Your task to perform on an android device: toggle airplane mode Image 0: 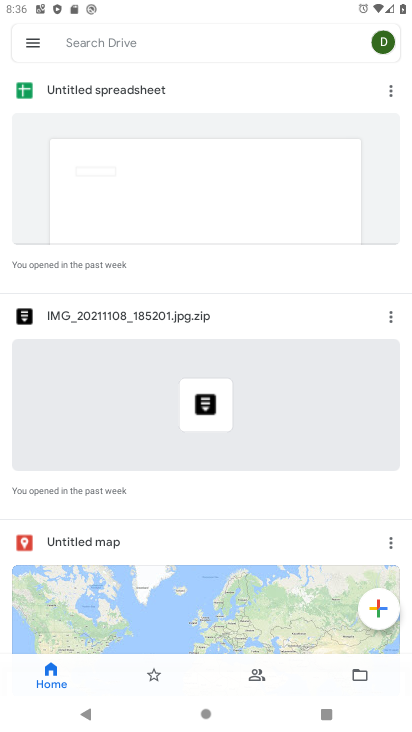
Step 0: press home button
Your task to perform on an android device: toggle airplane mode Image 1: 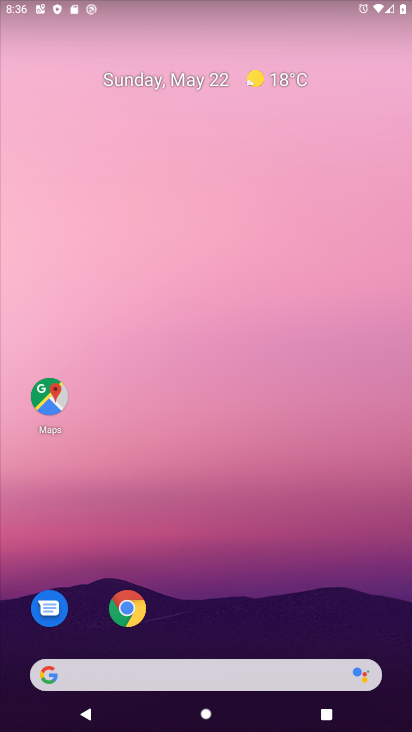
Step 1: drag from (238, 727) to (195, 89)
Your task to perform on an android device: toggle airplane mode Image 2: 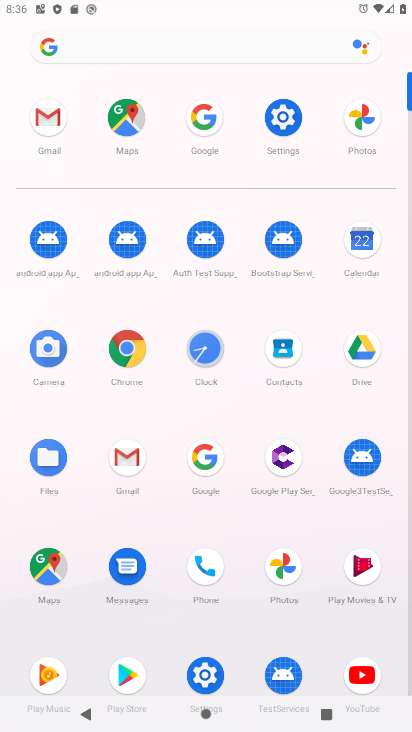
Step 2: click (289, 115)
Your task to perform on an android device: toggle airplane mode Image 3: 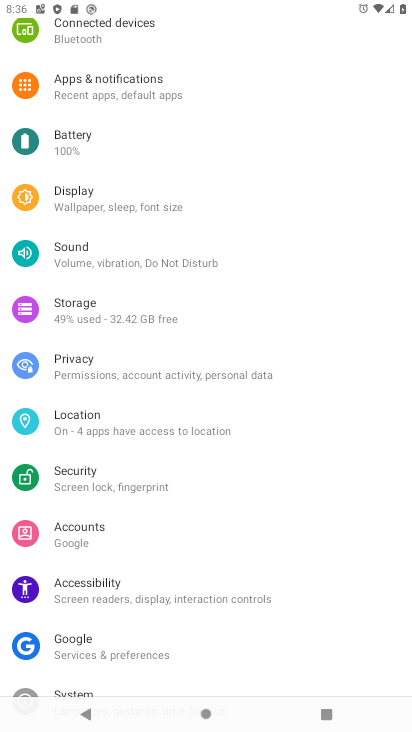
Step 3: drag from (172, 122) to (157, 623)
Your task to perform on an android device: toggle airplane mode Image 4: 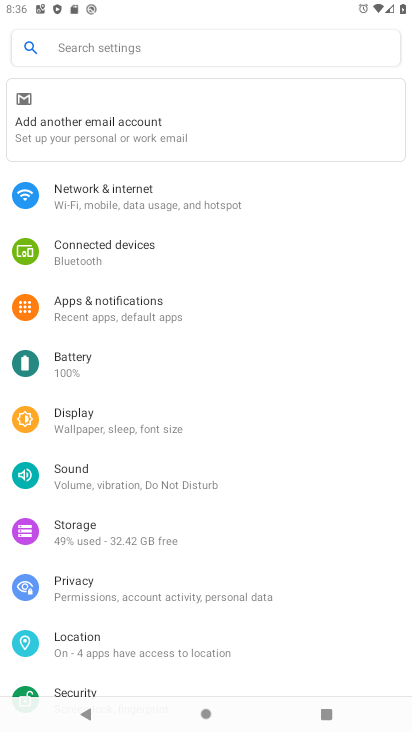
Step 4: click (95, 195)
Your task to perform on an android device: toggle airplane mode Image 5: 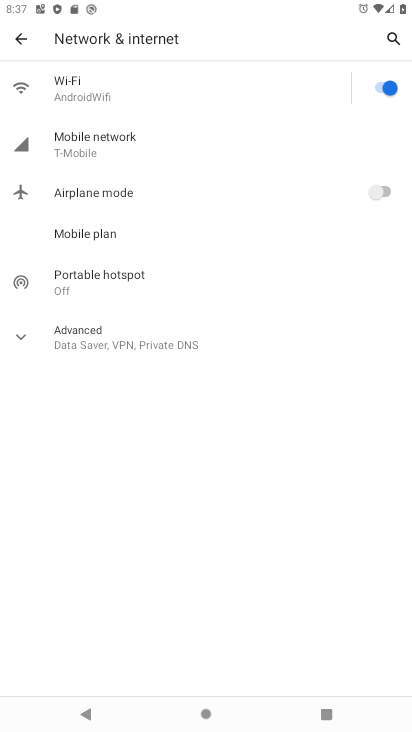
Step 5: click (384, 191)
Your task to perform on an android device: toggle airplane mode Image 6: 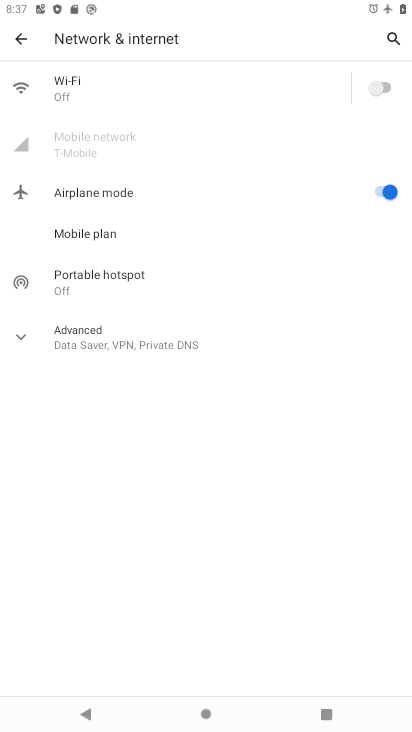
Step 6: task complete